Your task to perform on an android device: What's the weather? Image 0: 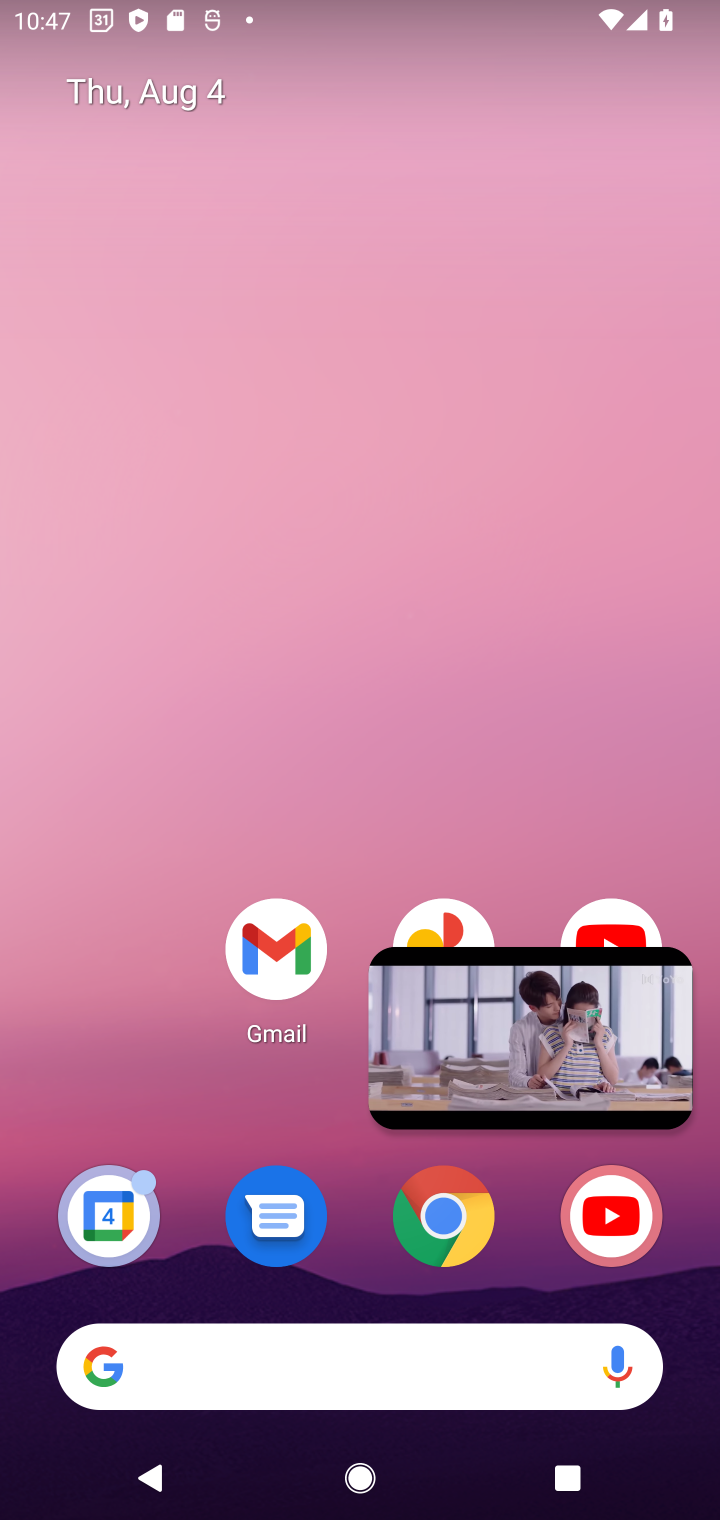
Step 0: press home button
Your task to perform on an android device: What's the weather? Image 1: 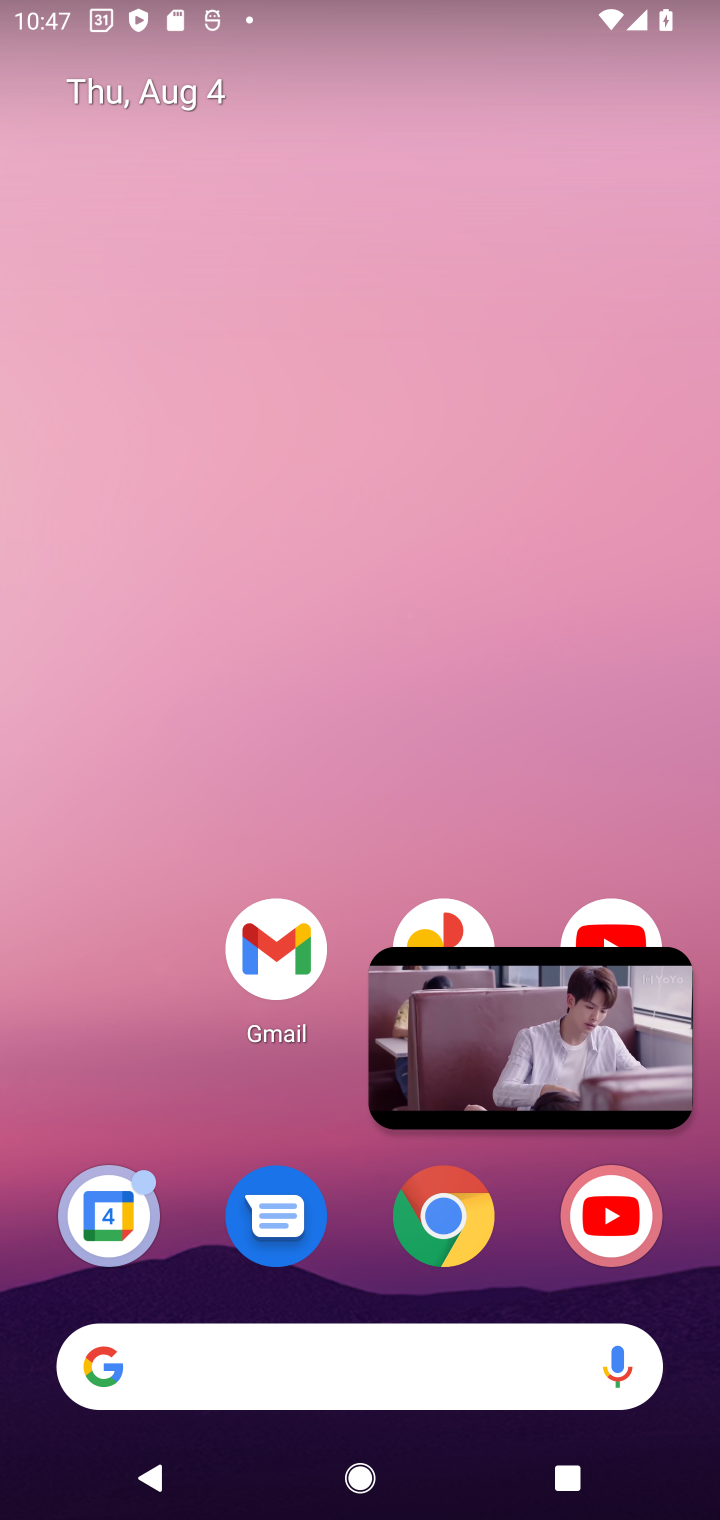
Step 1: drag from (203, 1383) to (258, 225)
Your task to perform on an android device: What's the weather? Image 2: 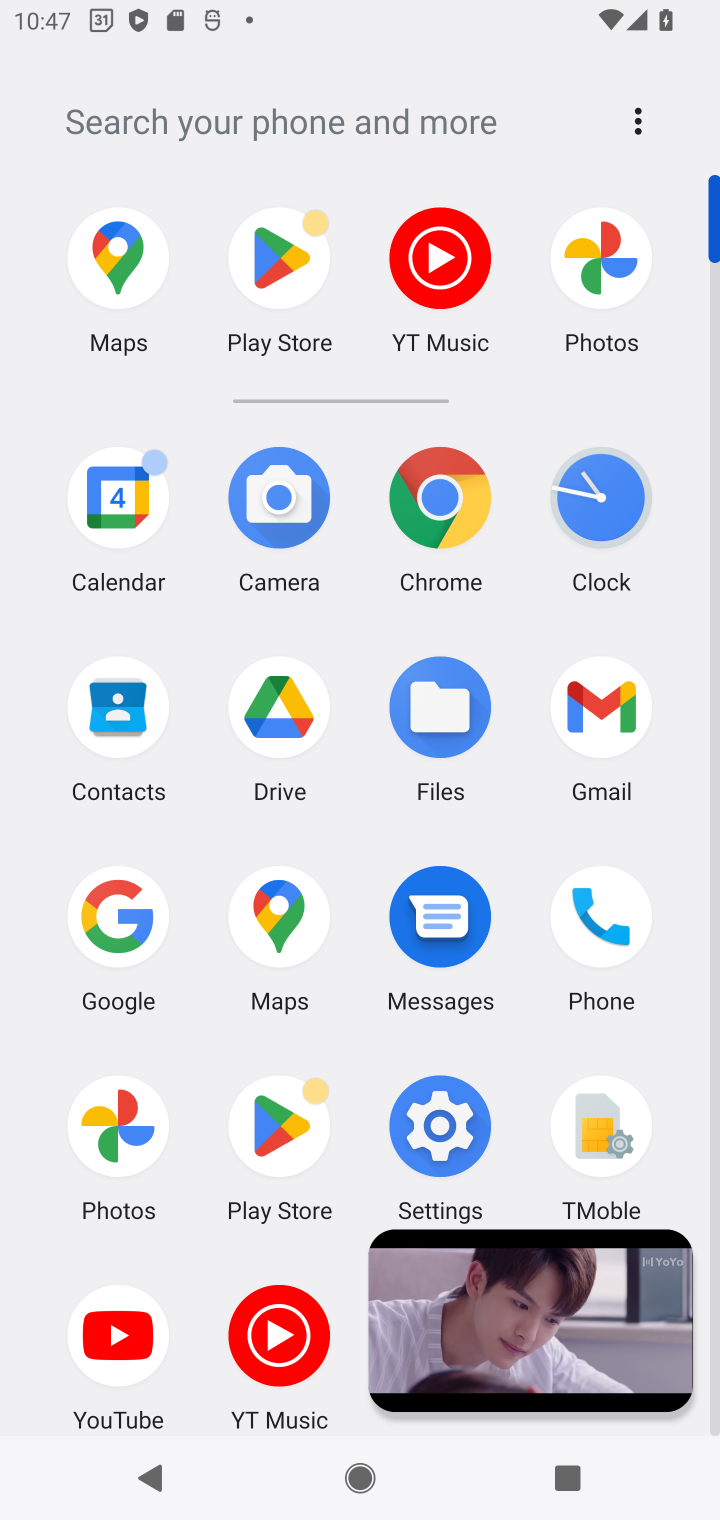
Step 2: click (117, 912)
Your task to perform on an android device: What's the weather? Image 3: 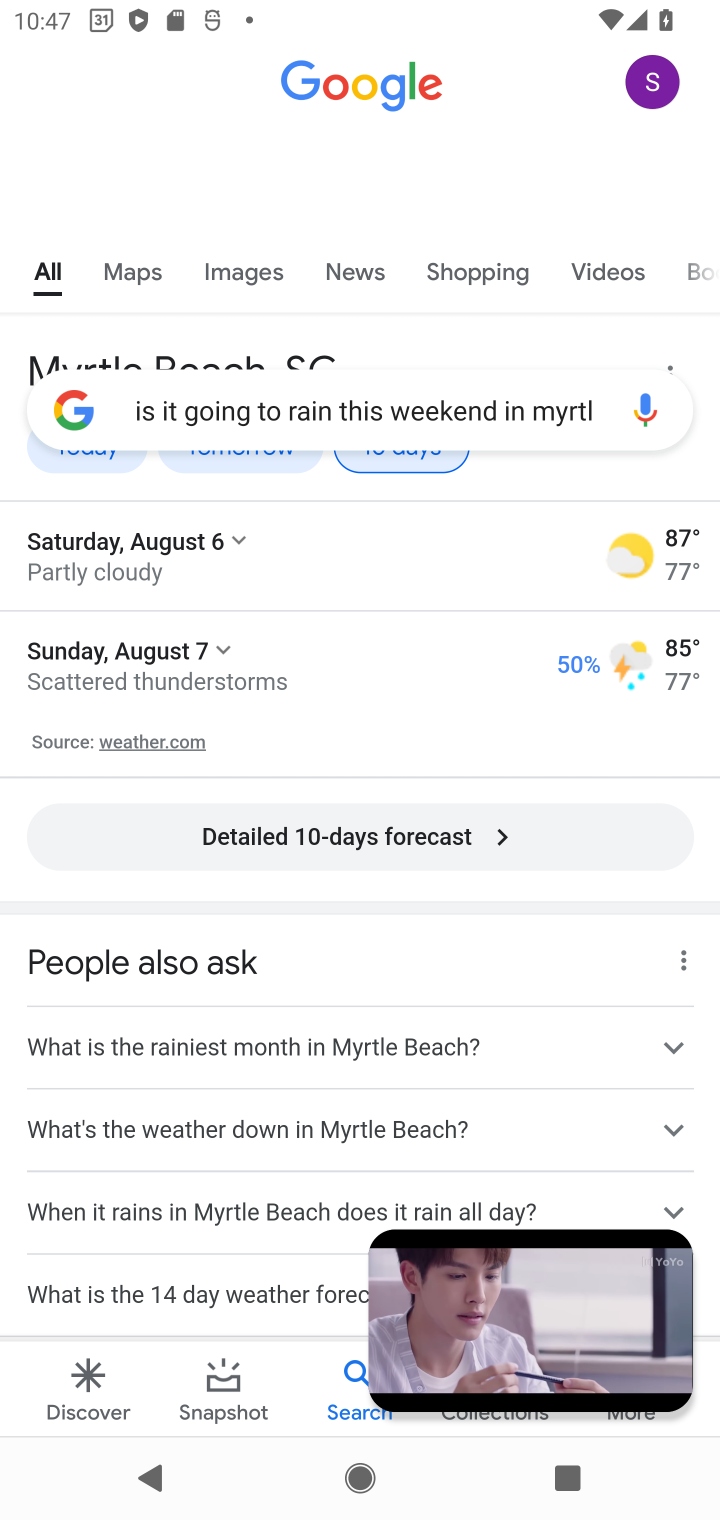
Step 3: click (477, 419)
Your task to perform on an android device: What's the weather? Image 4: 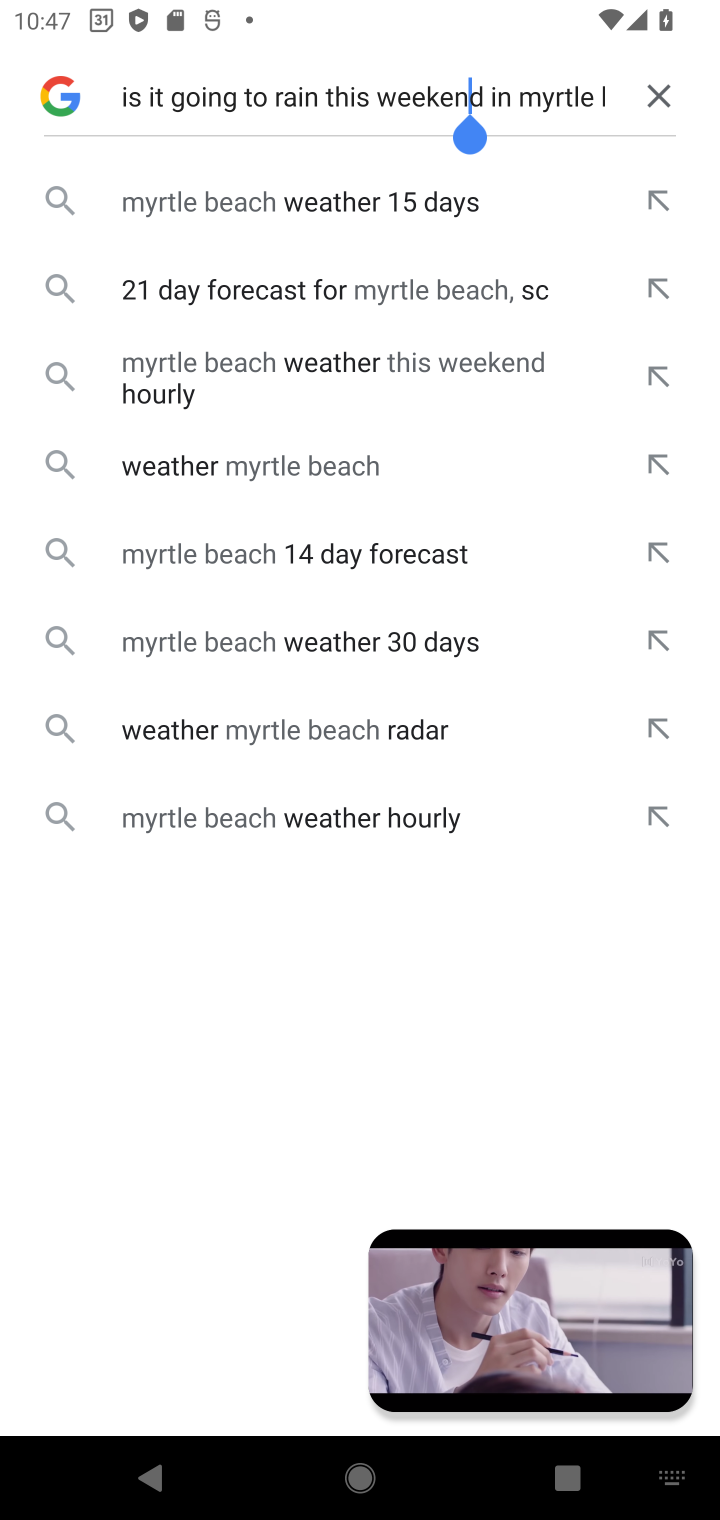
Step 4: click (659, 96)
Your task to perform on an android device: What's the weather? Image 5: 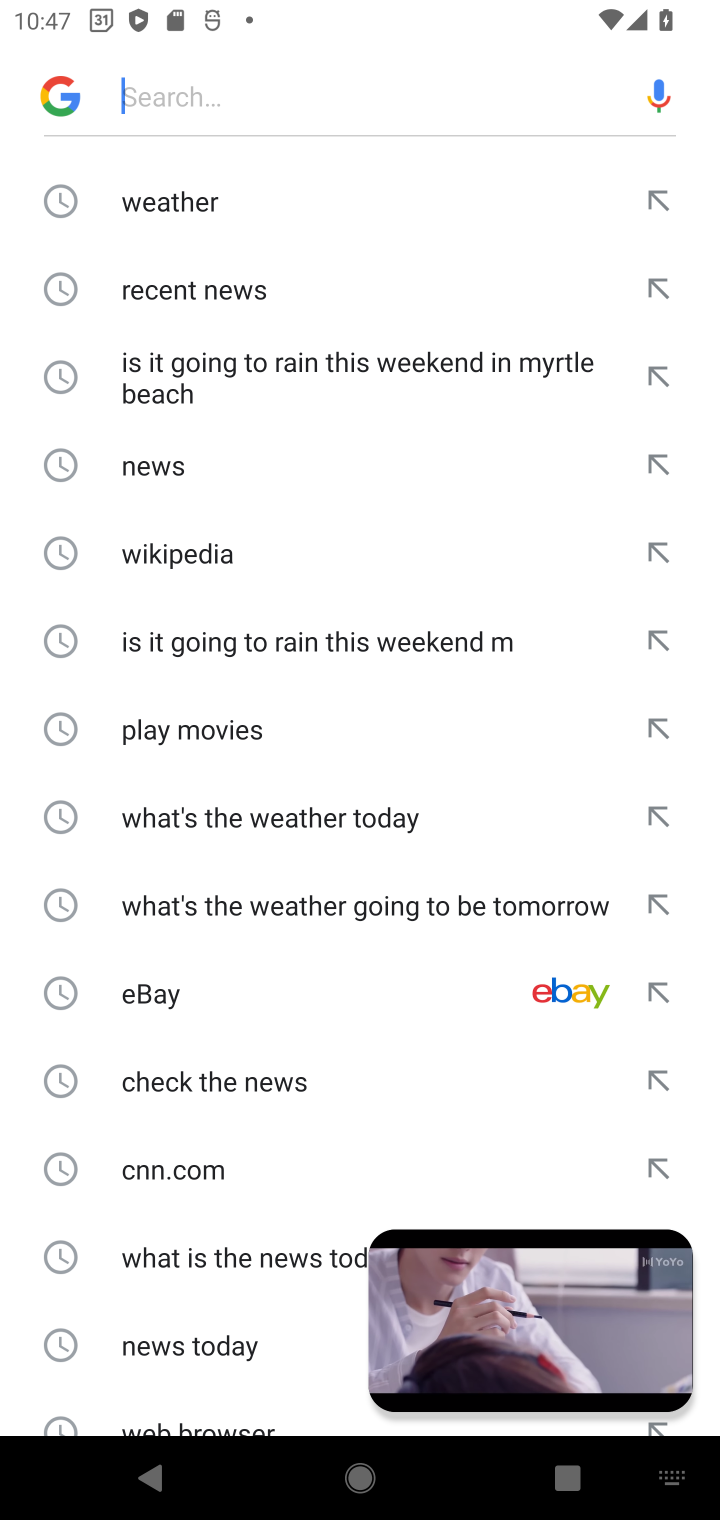
Step 5: click (188, 205)
Your task to perform on an android device: What's the weather? Image 6: 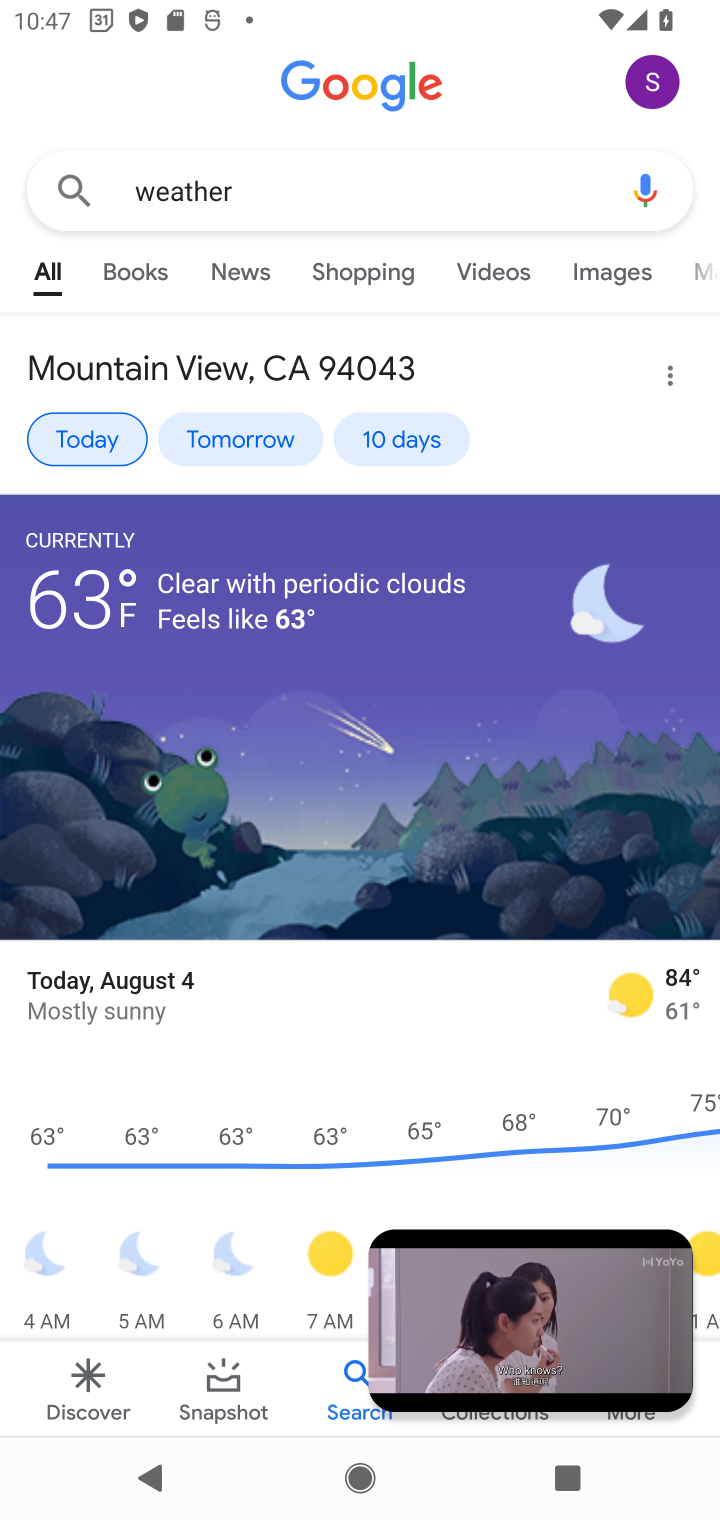
Step 6: task complete